Your task to perform on an android device: turn vacation reply on in the gmail app Image 0: 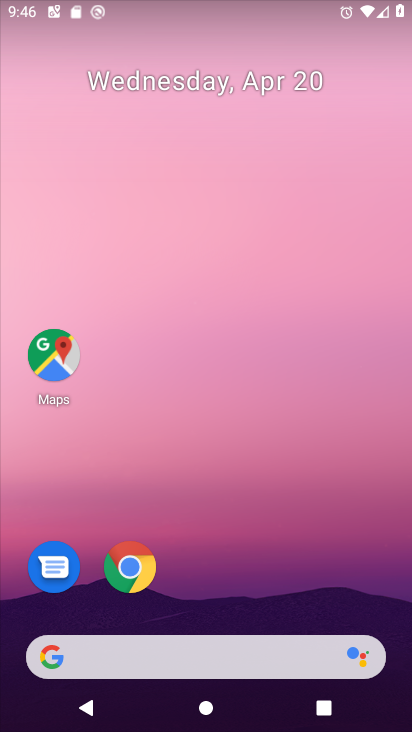
Step 0: drag from (350, 581) to (370, 251)
Your task to perform on an android device: turn vacation reply on in the gmail app Image 1: 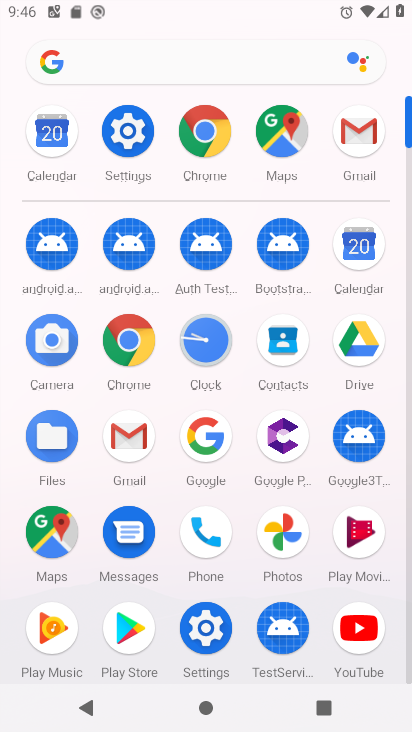
Step 1: click (127, 448)
Your task to perform on an android device: turn vacation reply on in the gmail app Image 2: 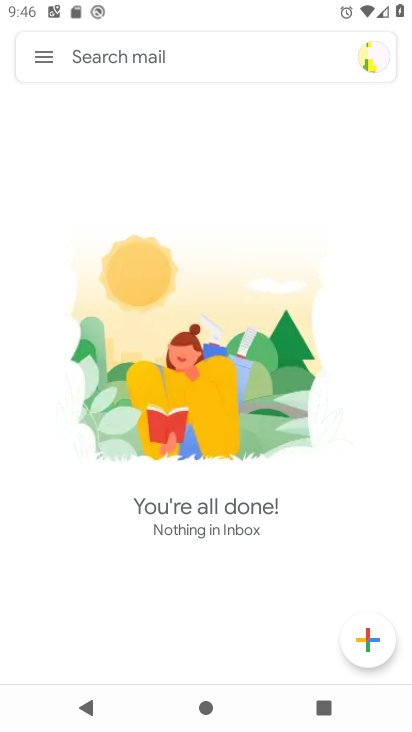
Step 2: click (45, 60)
Your task to perform on an android device: turn vacation reply on in the gmail app Image 3: 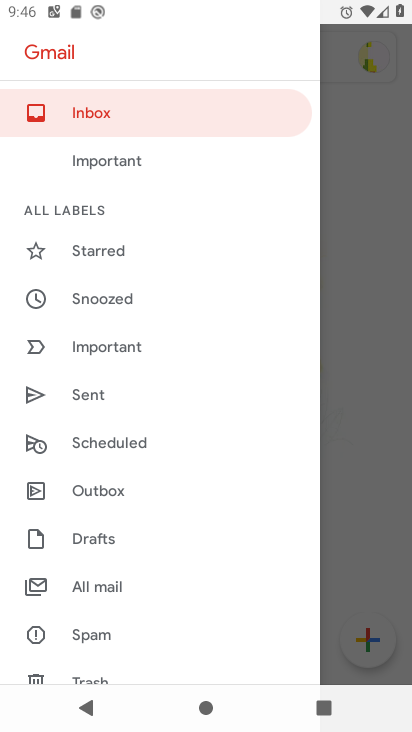
Step 3: drag from (259, 525) to (242, 432)
Your task to perform on an android device: turn vacation reply on in the gmail app Image 4: 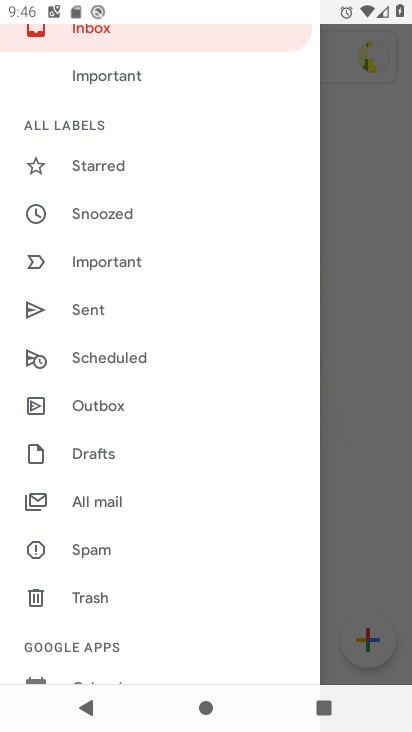
Step 4: drag from (248, 518) to (242, 434)
Your task to perform on an android device: turn vacation reply on in the gmail app Image 5: 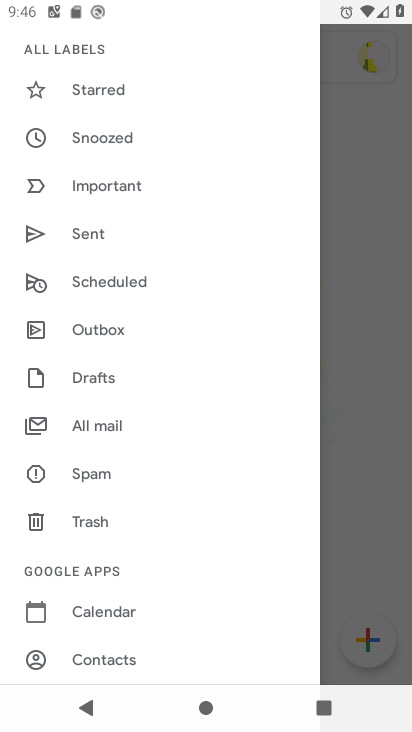
Step 5: drag from (230, 509) to (230, 395)
Your task to perform on an android device: turn vacation reply on in the gmail app Image 6: 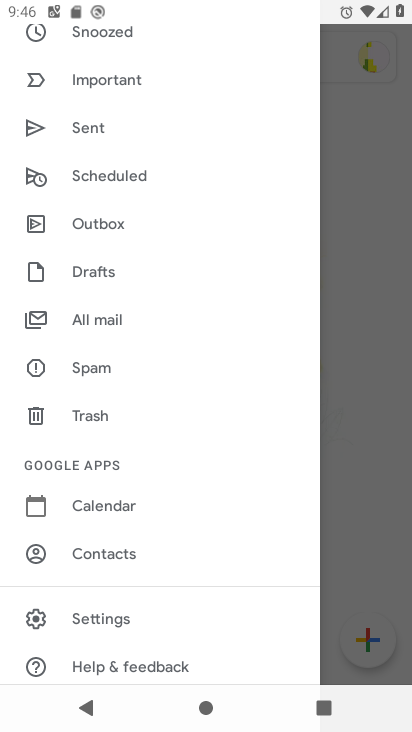
Step 6: drag from (214, 494) to (215, 409)
Your task to perform on an android device: turn vacation reply on in the gmail app Image 7: 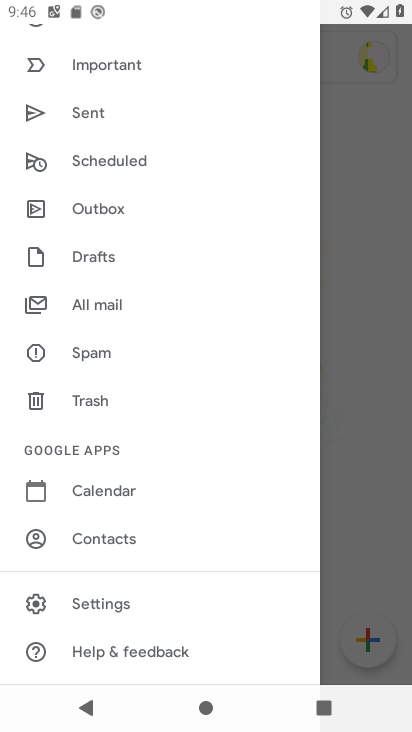
Step 7: click (129, 610)
Your task to perform on an android device: turn vacation reply on in the gmail app Image 8: 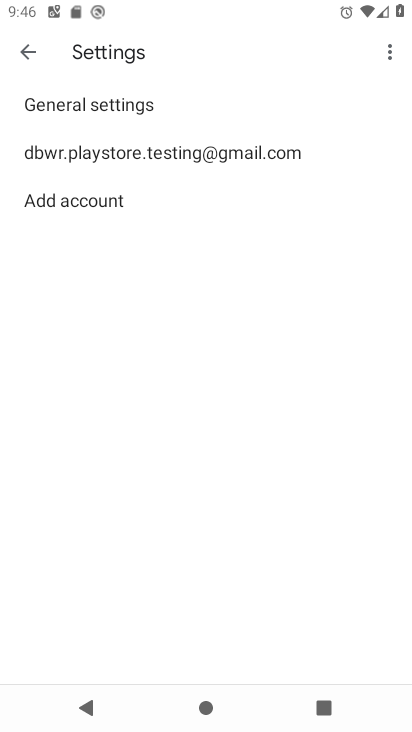
Step 8: click (264, 148)
Your task to perform on an android device: turn vacation reply on in the gmail app Image 9: 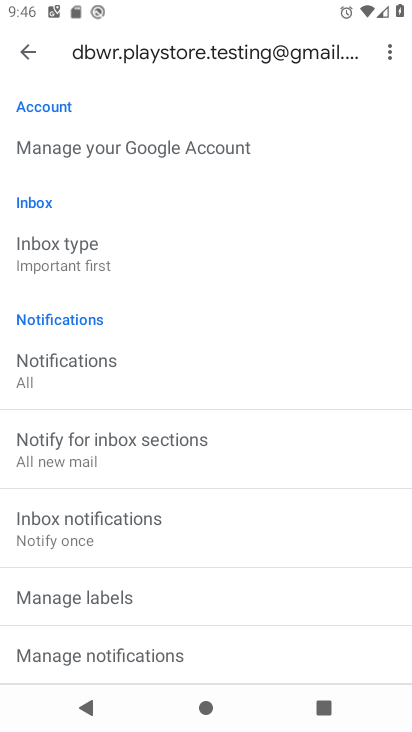
Step 9: drag from (306, 567) to (339, 401)
Your task to perform on an android device: turn vacation reply on in the gmail app Image 10: 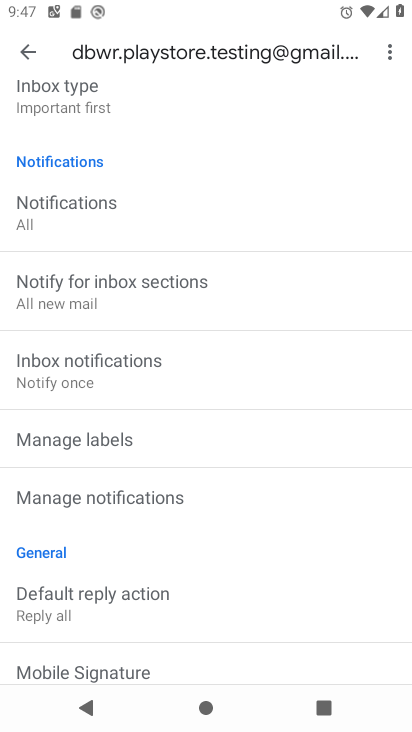
Step 10: drag from (309, 581) to (315, 406)
Your task to perform on an android device: turn vacation reply on in the gmail app Image 11: 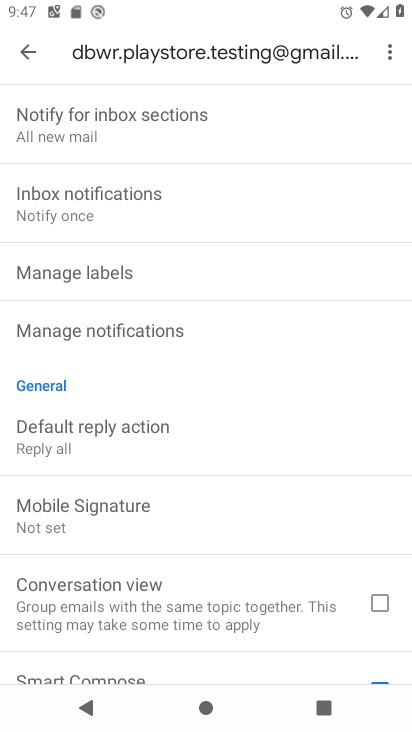
Step 11: drag from (288, 541) to (288, 385)
Your task to perform on an android device: turn vacation reply on in the gmail app Image 12: 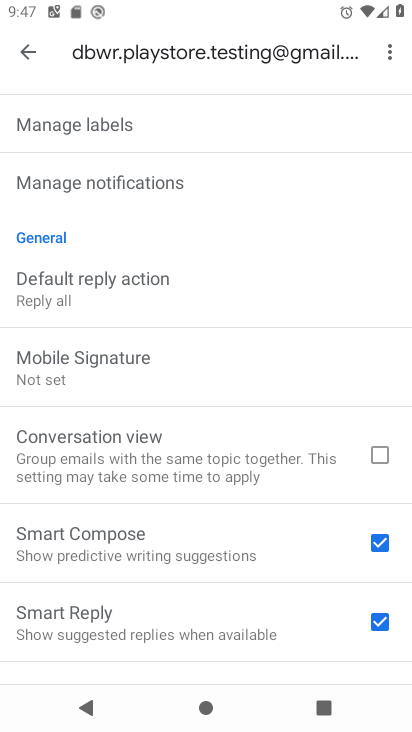
Step 12: drag from (265, 535) to (291, 426)
Your task to perform on an android device: turn vacation reply on in the gmail app Image 13: 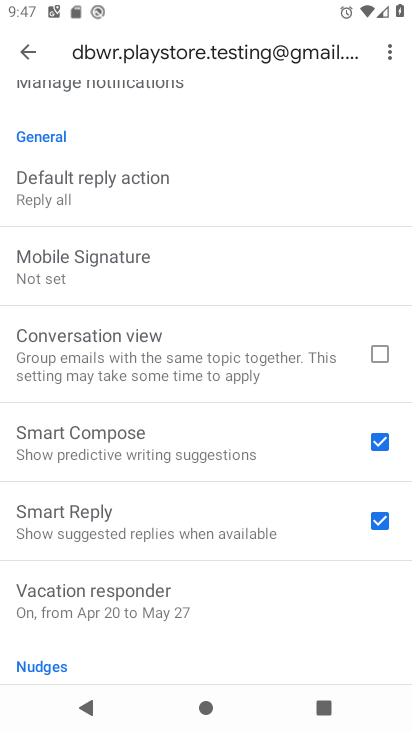
Step 13: drag from (259, 587) to (261, 450)
Your task to perform on an android device: turn vacation reply on in the gmail app Image 14: 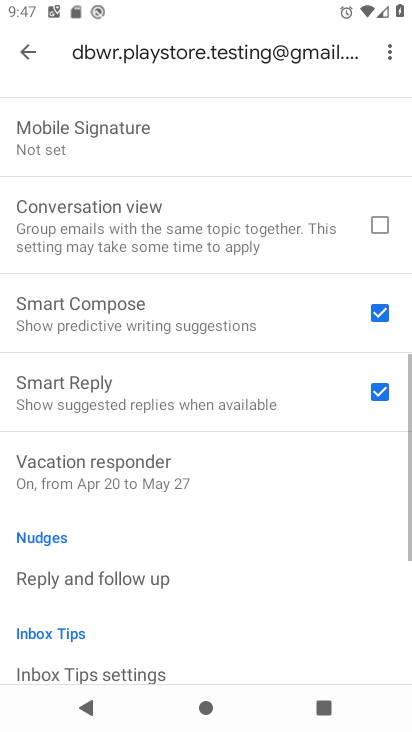
Step 14: drag from (249, 585) to (245, 446)
Your task to perform on an android device: turn vacation reply on in the gmail app Image 15: 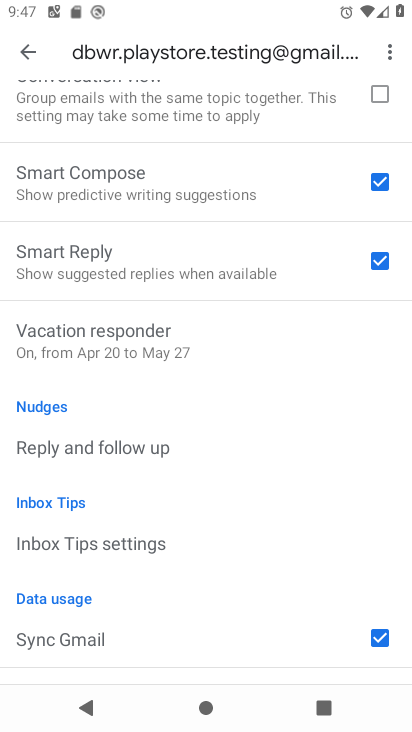
Step 15: drag from (241, 577) to (250, 425)
Your task to perform on an android device: turn vacation reply on in the gmail app Image 16: 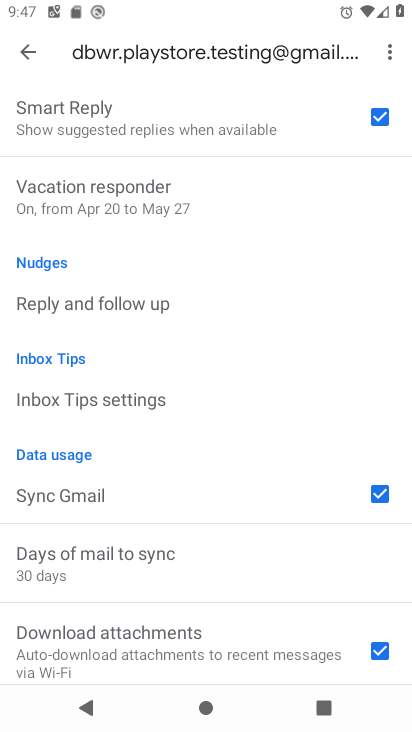
Step 16: drag from (252, 564) to (258, 427)
Your task to perform on an android device: turn vacation reply on in the gmail app Image 17: 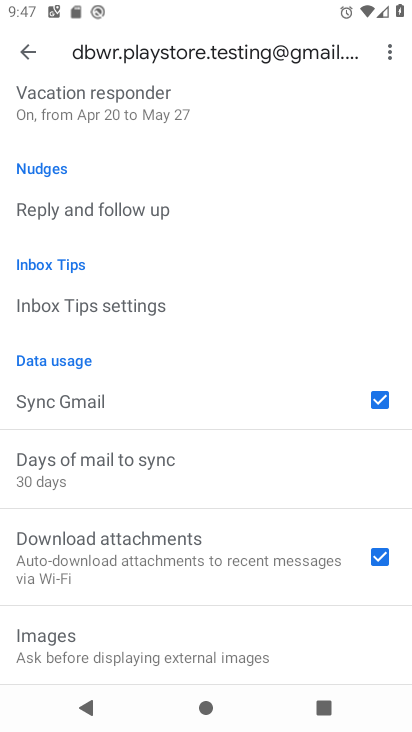
Step 17: drag from (254, 541) to (256, 411)
Your task to perform on an android device: turn vacation reply on in the gmail app Image 18: 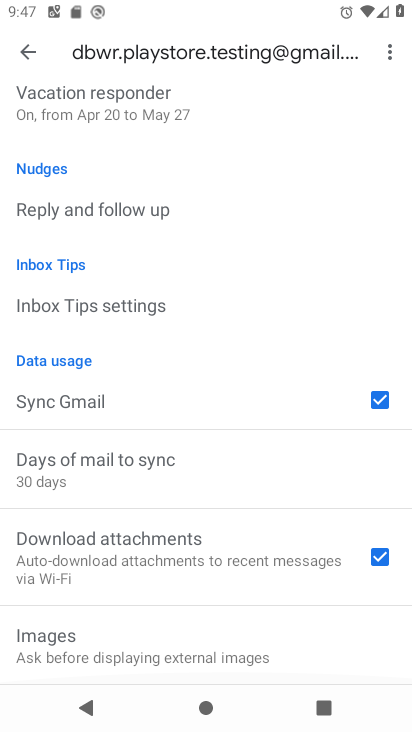
Step 18: drag from (248, 583) to (257, 440)
Your task to perform on an android device: turn vacation reply on in the gmail app Image 19: 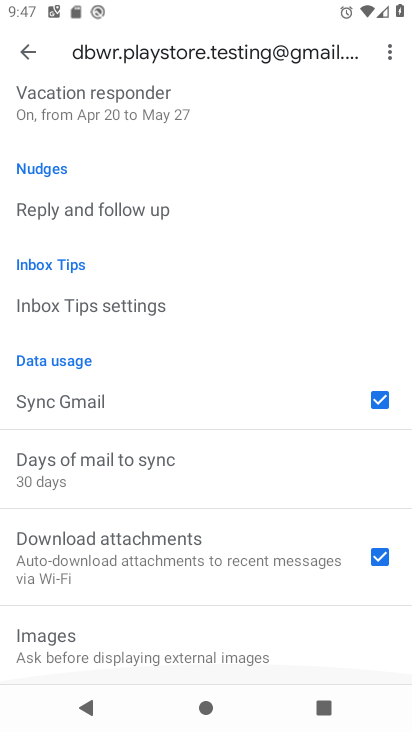
Step 19: drag from (274, 404) to (270, 505)
Your task to perform on an android device: turn vacation reply on in the gmail app Image 20: 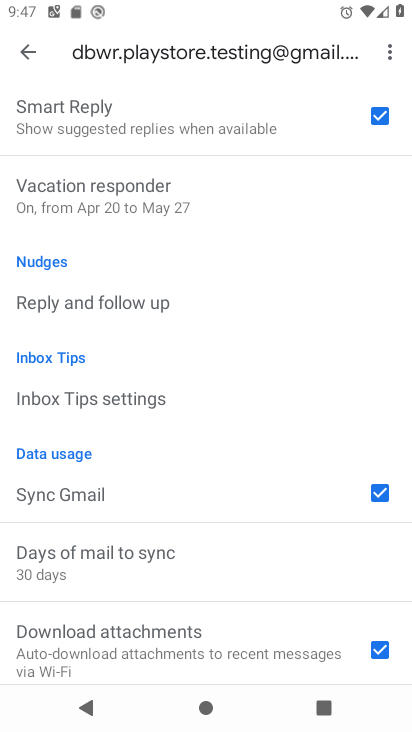
Step 20: drag from (262, 424) to (262, 505)
Your task to perform on an android device: turn vacation reply on in the gmail app Image 21: 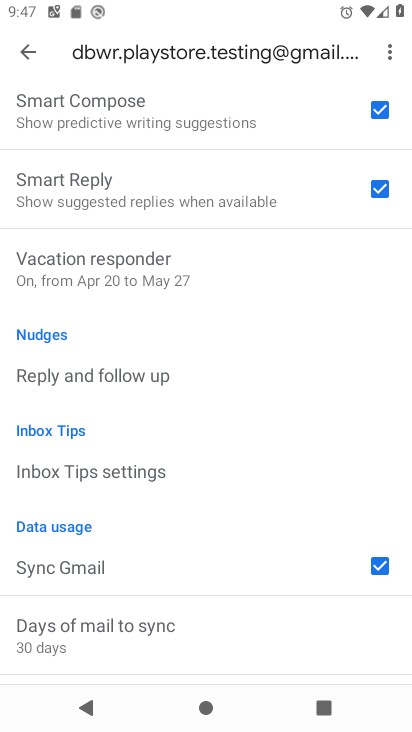
Step 21: drag from (260, 425) to (260, 506)
Your task to perform on an android device: turn vacation reply on in the gmail app Image 22: 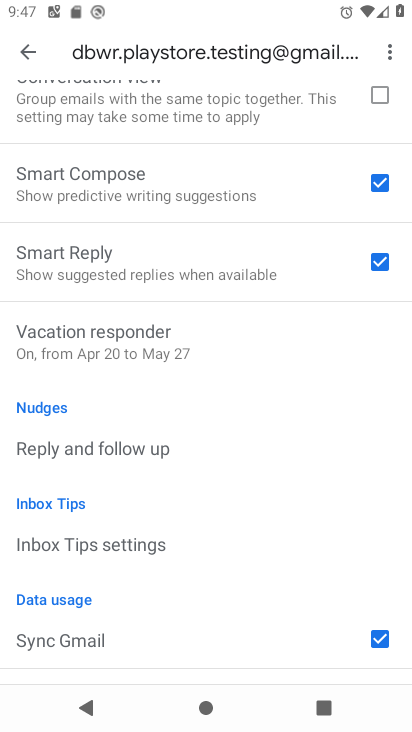
Step 22: drag from (259, 462) to (257, 502)
Your task to perform on an android device: turn vacation reply on in the gmail app Image 23: 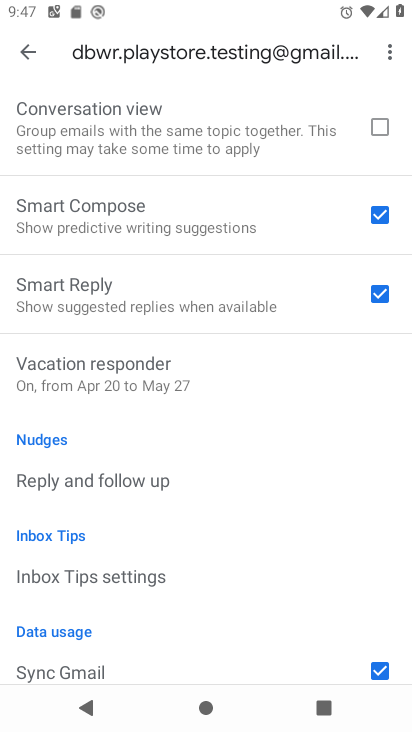
Step 23: drag from (267, 439) to (266, 544)
Your task to perform on an android device: turn vacation reply on in the gmail app Image 24: 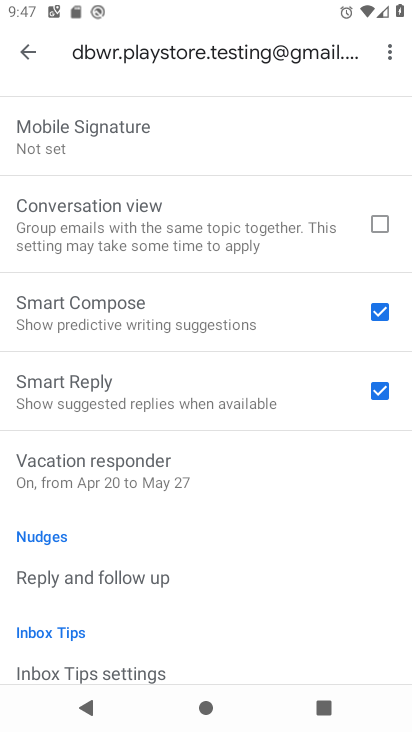
Step 24: click (156, 465)
Your task to perform on an android device: turn vacation reply on in the gmail app Image 25: 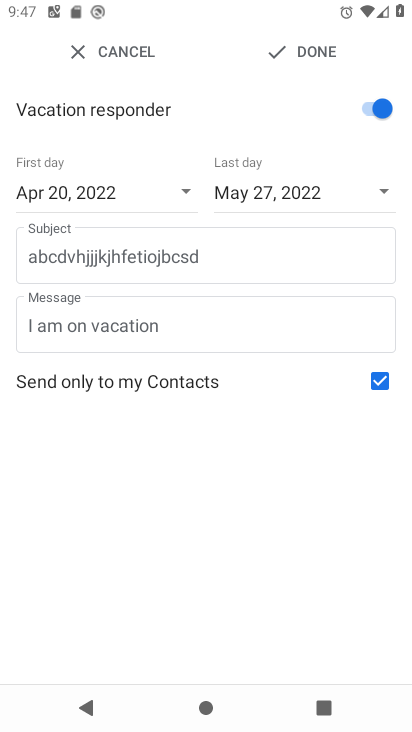
Step 25: task complete